Your task to perform on an android device: change the clock display to analog Image 0: 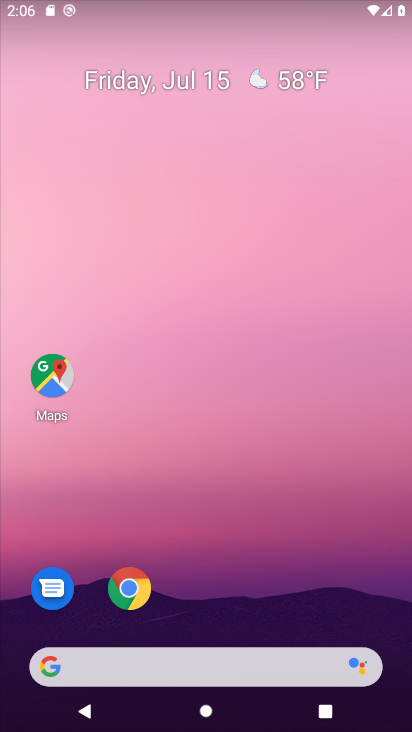
Step 0: drag from (310, 600) to (262, 178)
Your task to perform on an android device: change the clock display to analog Image 1: 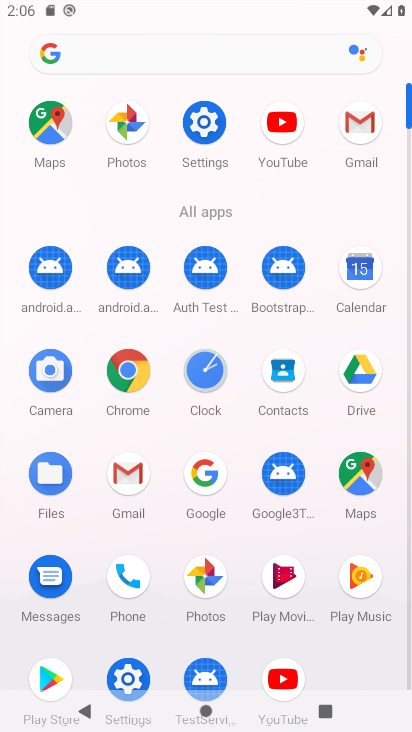
Step 1: click (208, 362)
Your task to perform on an android device: change the clock display to analog Image 2: 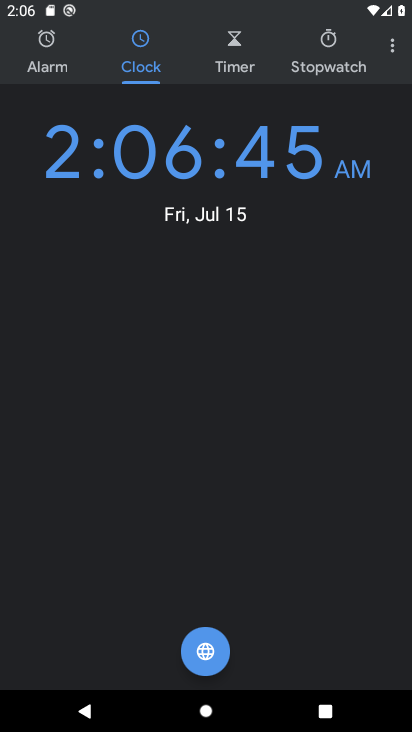
Step 2: click (392, 40)
Your task to perform on an android device: change the clock display to analog Image 3: 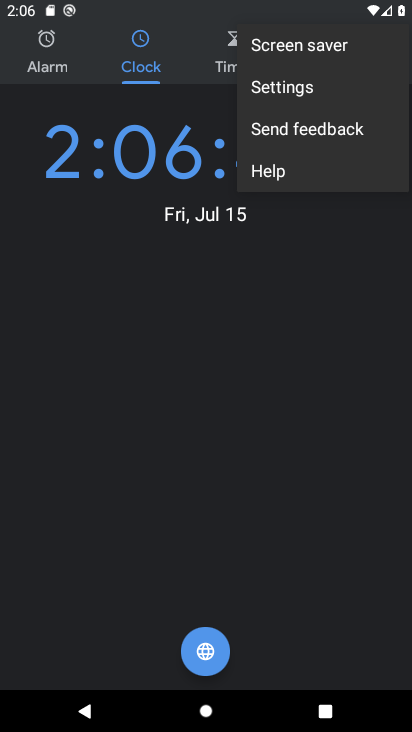
Step 3: click (290, 97)
Your task to perform on an android device: change the clock display to analog Image 4: 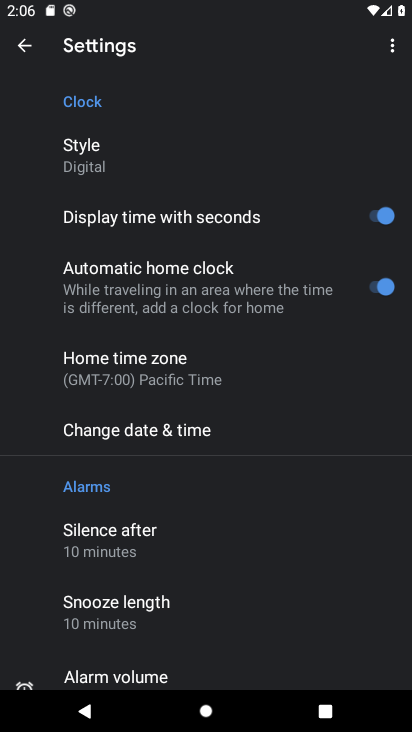
Step 4: click (102, 145)
Your task to perform on an android device: change the clock display to analog Image 5: 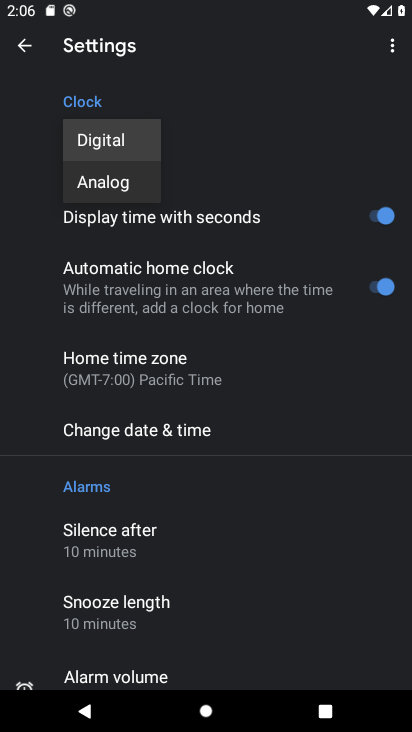
Step 5: click (121, 182)
Your task to perform on an android device: change the clock display to analog Image 6: 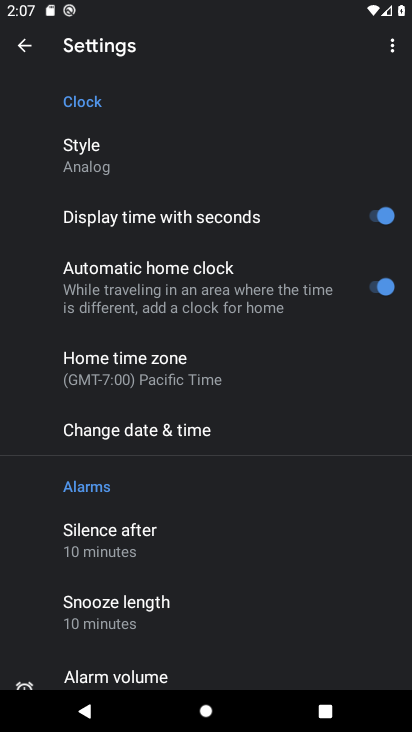
Step 6: task complete